Your task to perform on an android device: turn on notifications settings in the gmail app Image 0: 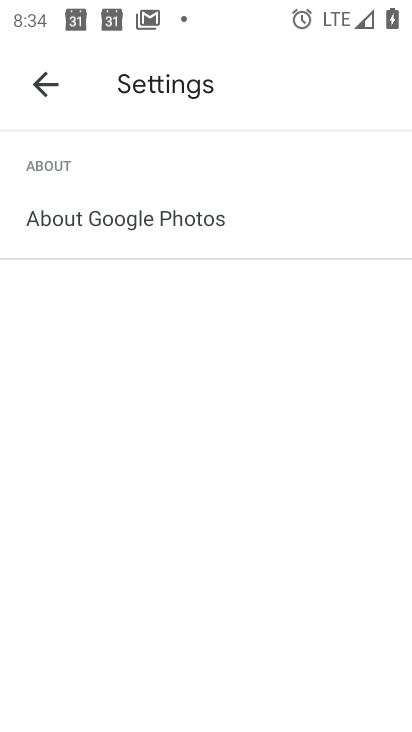
Step 0: press home button
Your task to perform on an android device: turn on notifications settings in the gmail app Image 1: 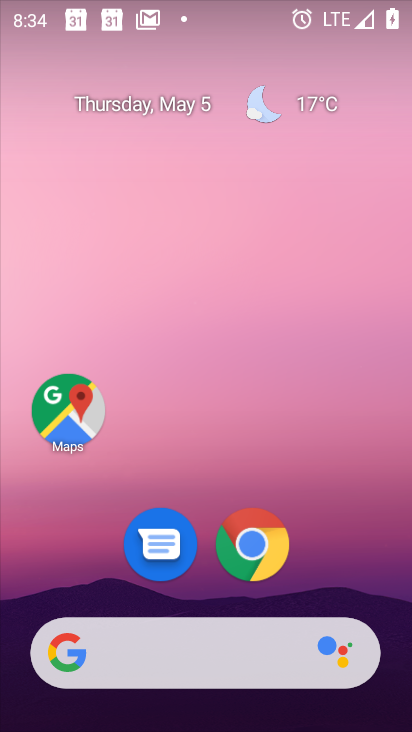
Step 1: drag from (357, 586) to (285, 102)
Your task to perform on an android device: turn on notifications settings in the gmail app Image 2: 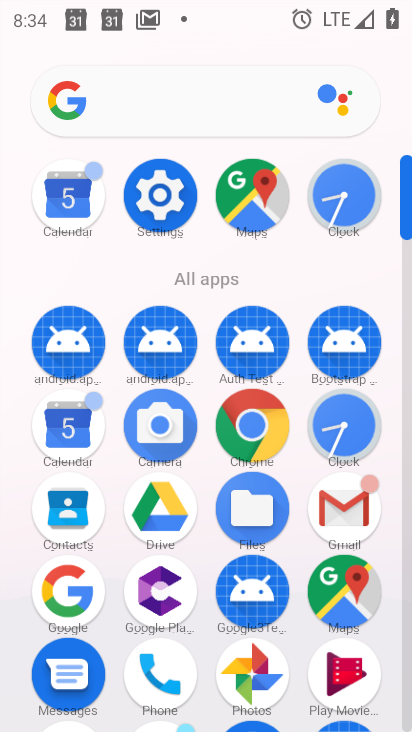
Step 2: click (408, 704)
Your task to perform on an android device: turn on notifications settings in the gmail app Image 3: 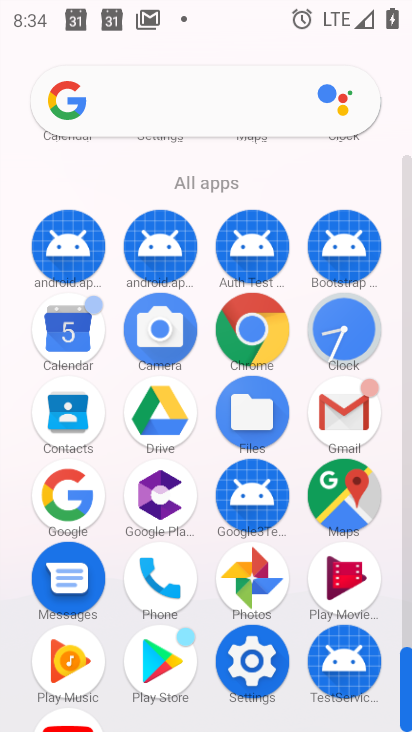
Step 3: click (399, 704)
Your task to perform on an android device: turn on notifications settings in the gmail app Image 4: 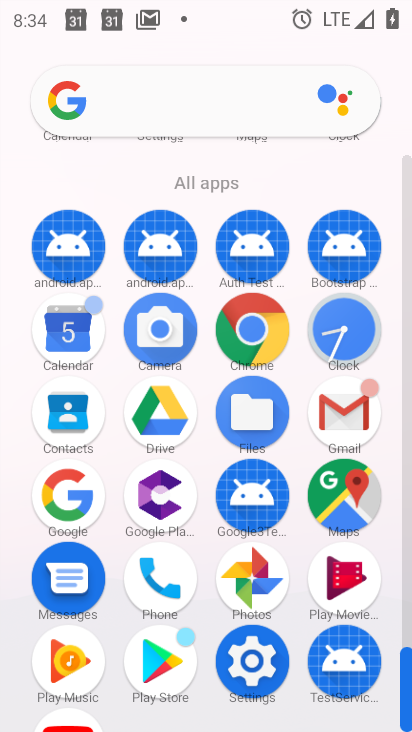
Step 4: click (340, 411)
Your task to perform on an android device: turn on notifications settings in the gmail app Image 5: 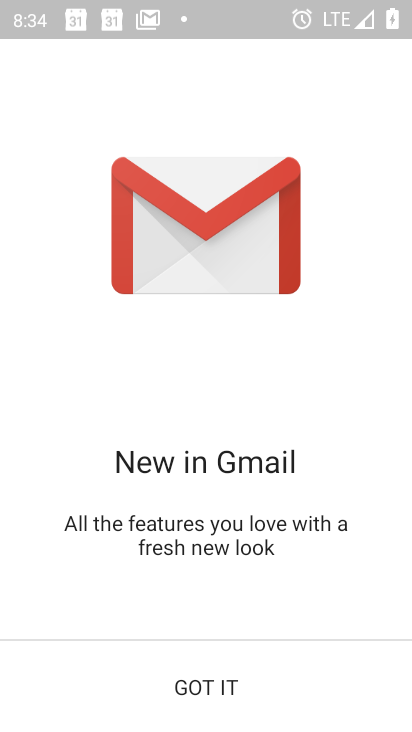
Step 5: click (239, 667)
Your task to perform on an android device: turn on notifications settings in the gmail app Image 6: 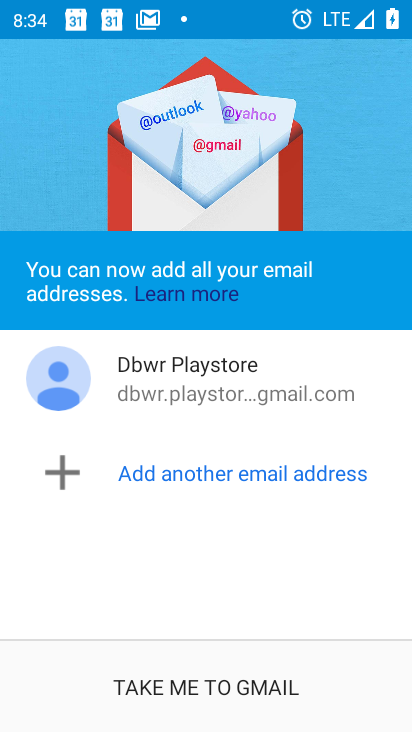
Step 6: click (239, 667)
Your task to perform on an android device: turn on notifications settings in the gmail app Image 7: 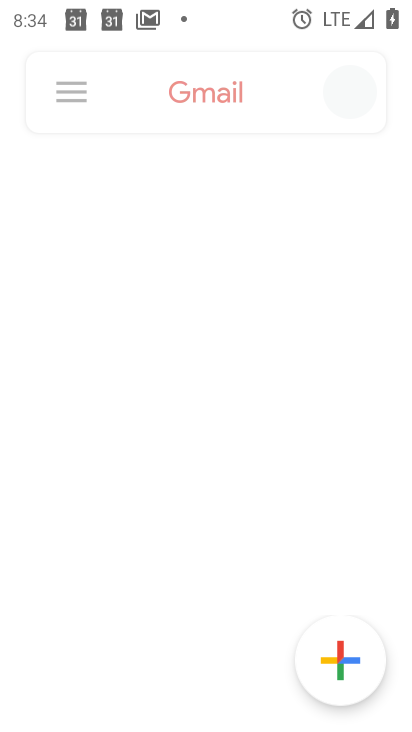
Step 7: click (239, 667)
Your task to perform on an android device: turn on notifications settings in the gmail app Image 8: 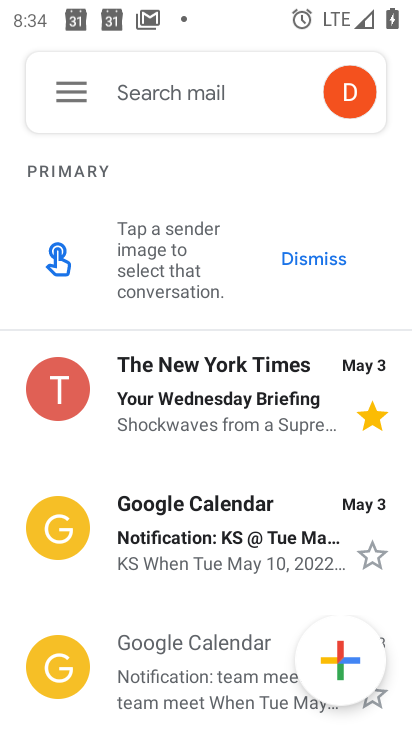
Step 8: click (90, 80)
Your task to perform on an android device: turn on notifications settings in the gmail app Image 9: 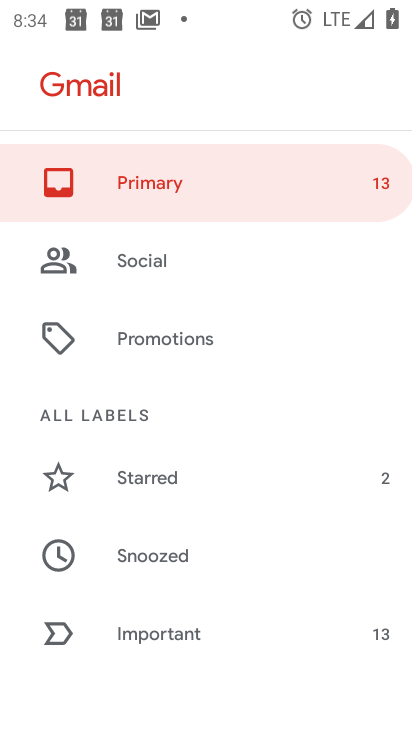
Step 9: drag from (76, 553) to (108, 355)
Your task to perform on an android device: turn on notifications settings in the gmail app Image 10: 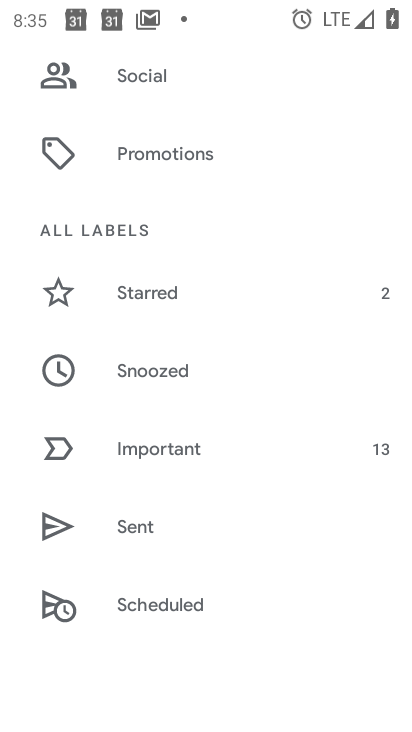
Step 10: drag from (108, 355) to (41, 77)
Your task to perform on an android device: turn on notifications settings in the gmail app Image 11: 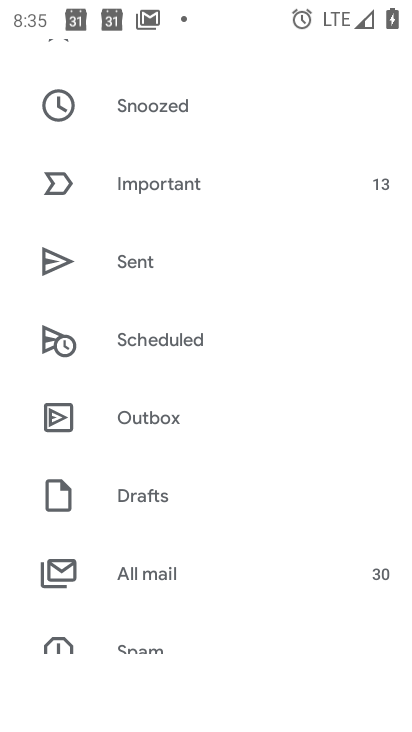
Step 11: drag from (89, 315) to (67, 55)
Your task to perform on an android device: turn on notifications settings in the gmail app Image 12: 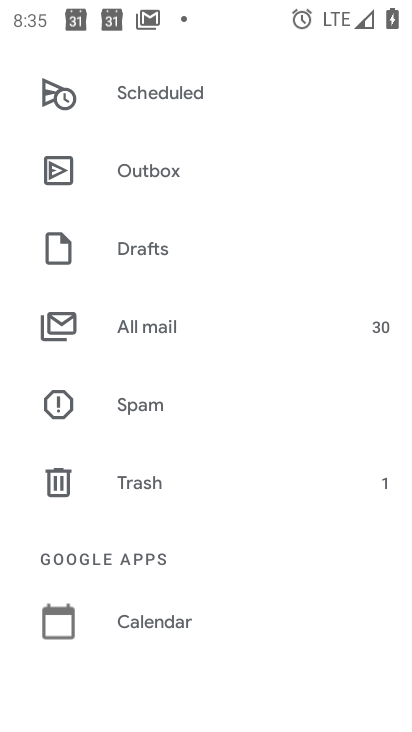
Step 12: drag from (107, 399) to (53, 86)
Your task to perform on an android device: turn on notifications settings in the gmail app Image 13: 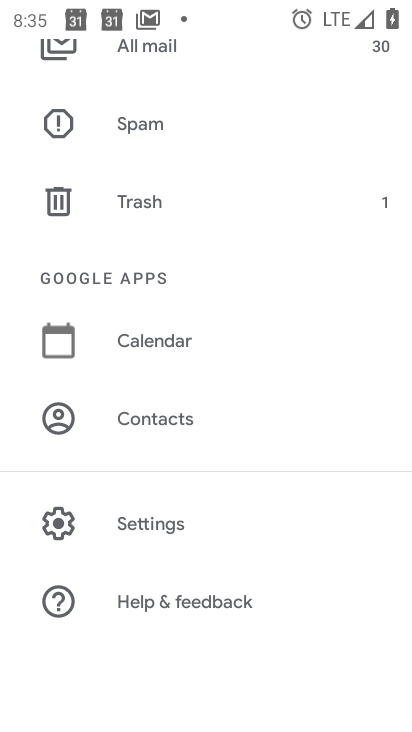
Step 13: click (199, 510)
Your task to perform on an android device: turn on notifications settings in the gmail app Image 14: 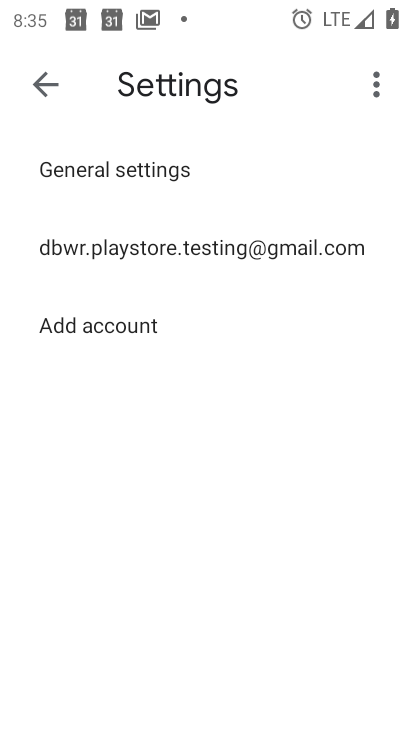
Step 14: click (161, 187)
Your task to perform on an android device: turn on notifications settings in the gmail app Image 15: 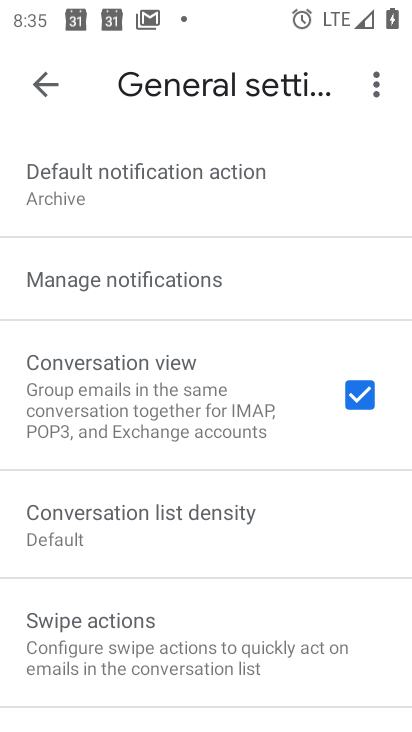
Step 15: click (236, 258)
Your task to perform on an android device: turn on notifications settings in the gmail app Image 16: 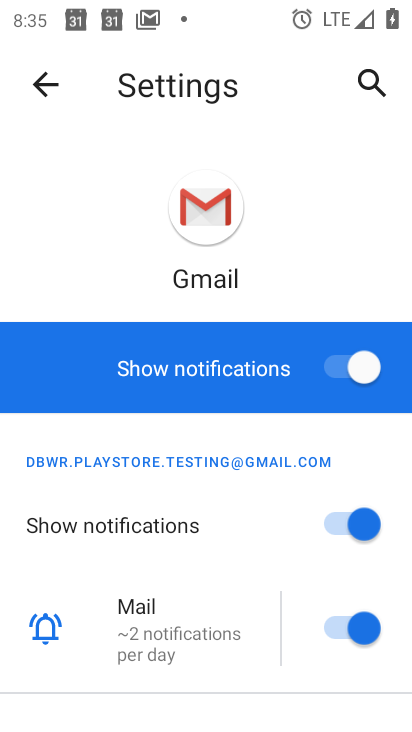
Step 16: task complete